Your task to perform on an android device: check data usage Image 0: 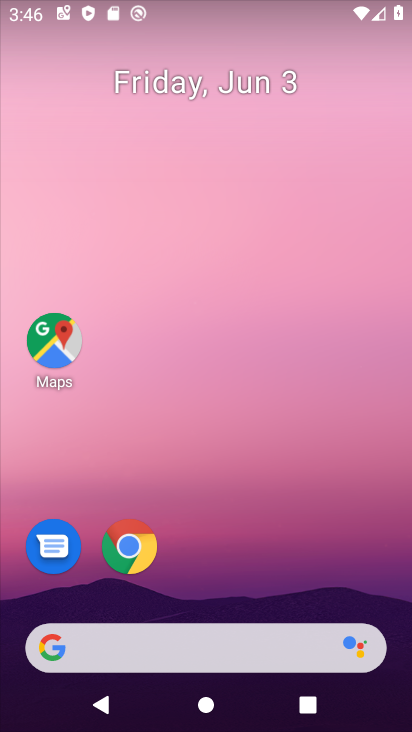
Step 0: drag from (265, 532) to (275, 1)
Your task to perform on an android device: check data usage Image 1: 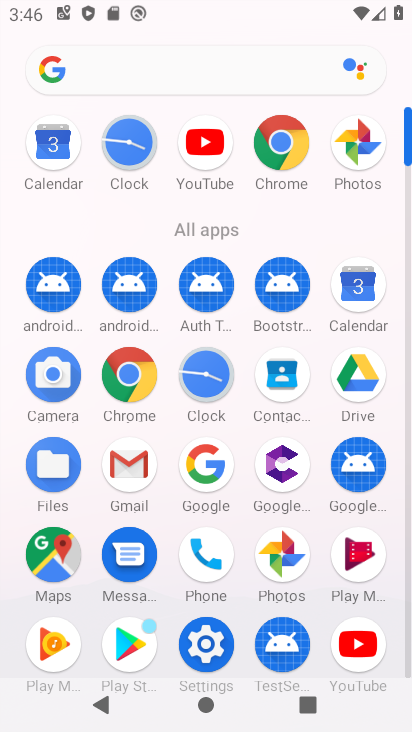
Step 1: click (208, 639)
Your task to perform on an android device: check data usage Image 2: 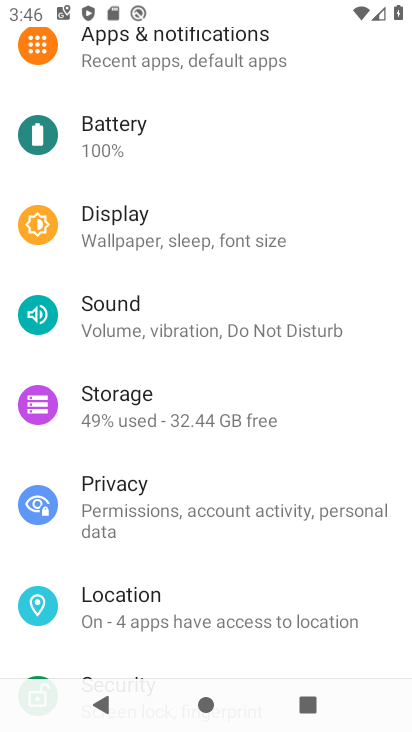
Step 2: drag from (199, 120) to (209, 442)
Your task to perform on an android device: check data usage Image 3: 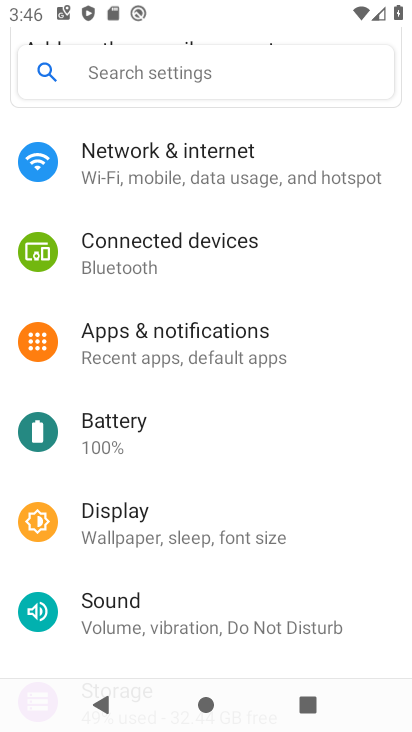
Step 3: click (239, 187)
Your task to perform on an android device: check data usage Image 4: 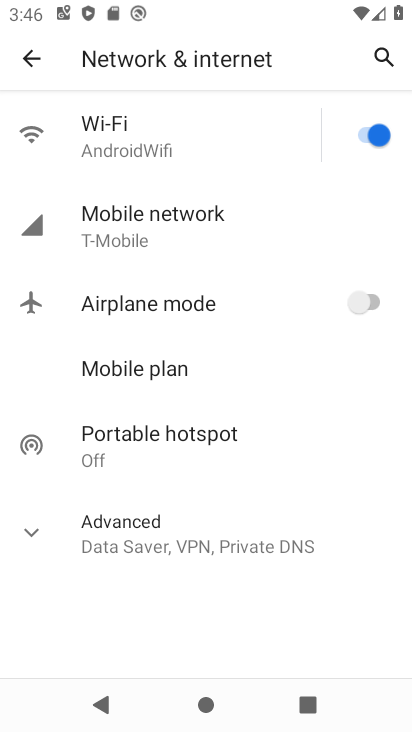
Step 4: click (232, 216)
Your task to perform on an android device: check data usage Image 5: 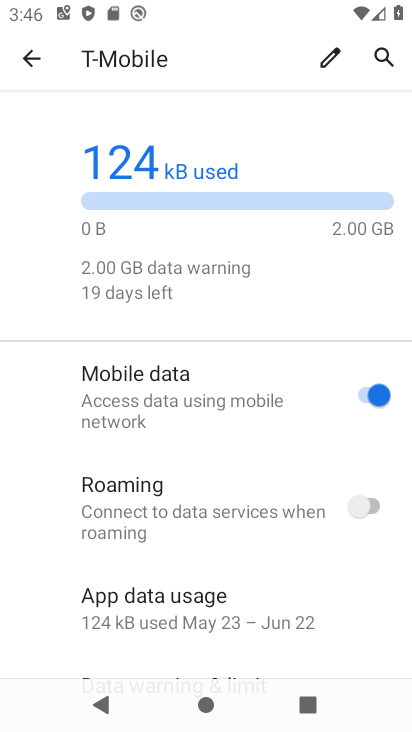
Step 5: task complete